Your task to perform on an android device: Open wifi settings Image 0: 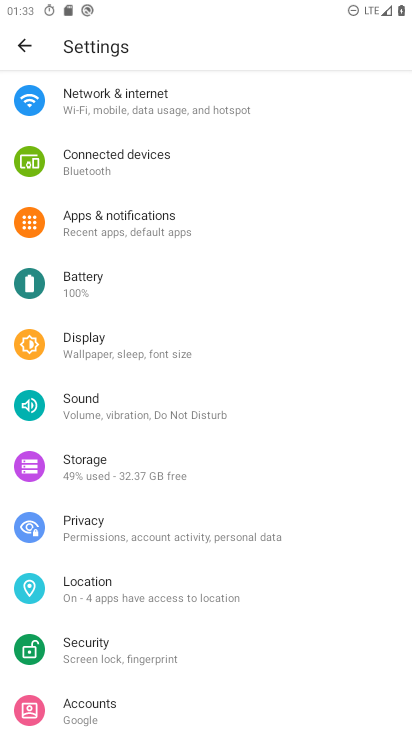
Step 0: click (150, 111)
Your task to perform on an android device: Open wifi settings Image 1: 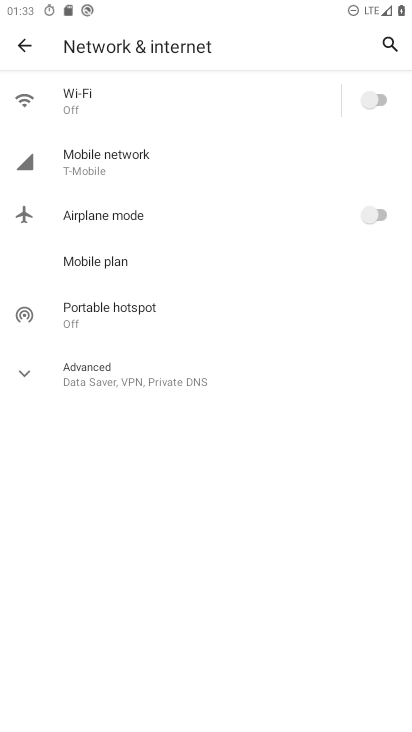
Step 1: click (151, 112)
Your task to perform on an android device: Open wifi settings Image 2: 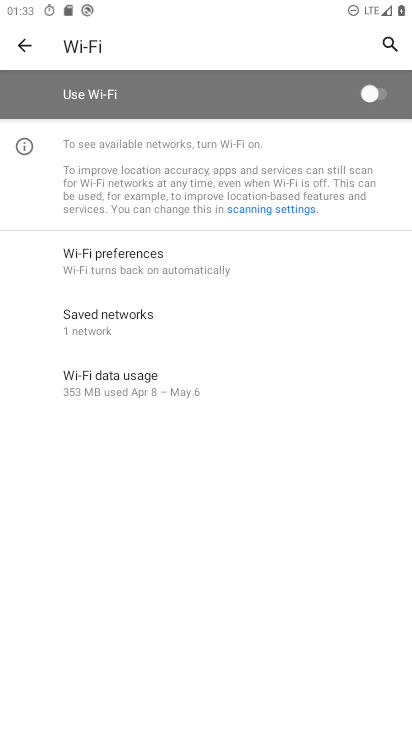
Step 2: click (180, 103)
Your task to perform on an android device: Open wifi settings Image 3: 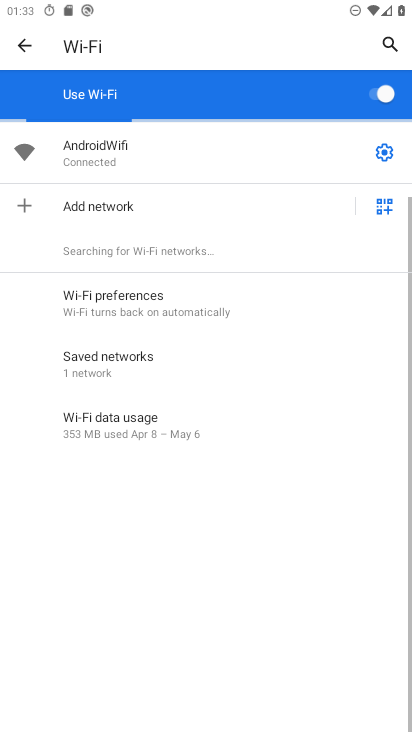
Step 3: click (379, 152)
Your task to perform on an android device: Open wifi settings Image 4: 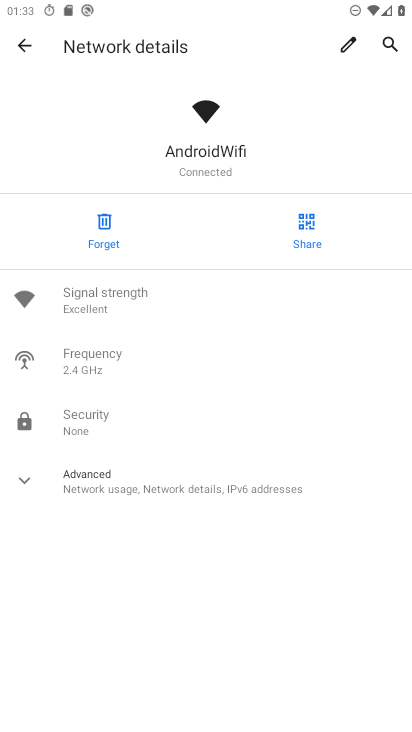
Step 4: task complete